Your task to perform on an android device: Open Google Chrome and open the bookmarks view Image 0: 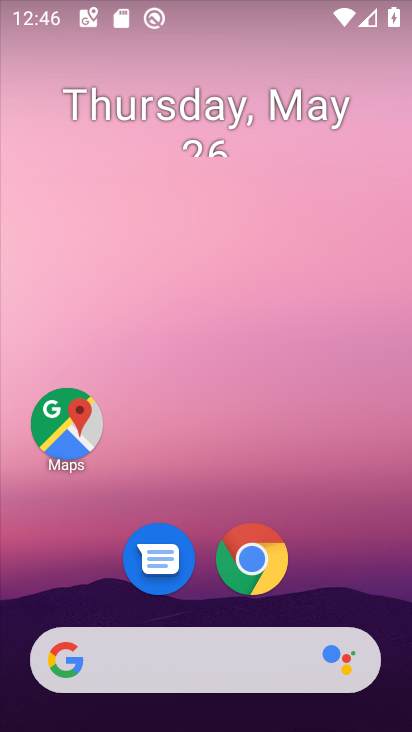
Step 0: press home button
Your task to perform on an android device: Open Google Chrome and open the bookmarks view Image 1: 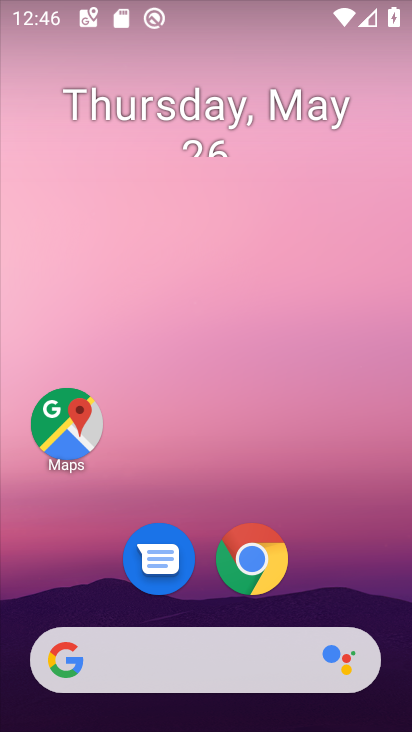
Step 1: click (262, 563)
Your task to perform on an android device: Open Google Chrome and open the bookmarks view Image 2: 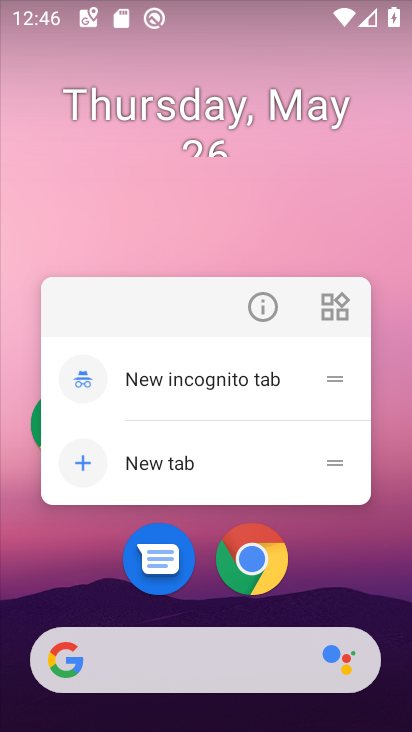
Step 2: click (262, 563)
Your task to perform on an android device: Open Google Chrome and open the bookmarks view Image 3: 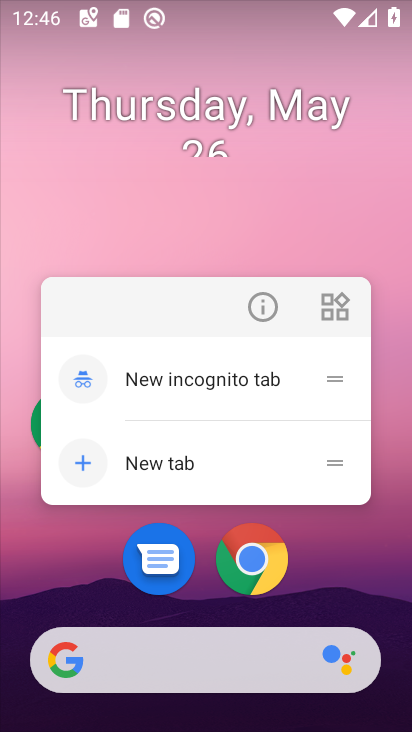
Step 3: click (262, 563)
Your task to perform on an android device: Open Google Chrome and open the bookmarks view Image 4: 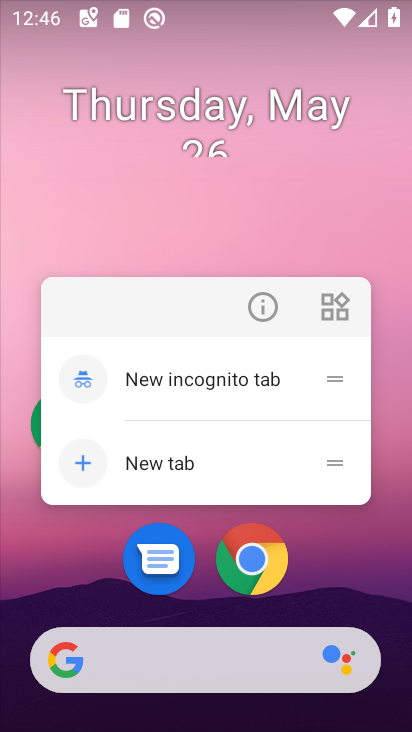
Step 4: click (246, 572)
Your task to perform on an android device: Open Google Chrome and open the bookmarks view Image 5: 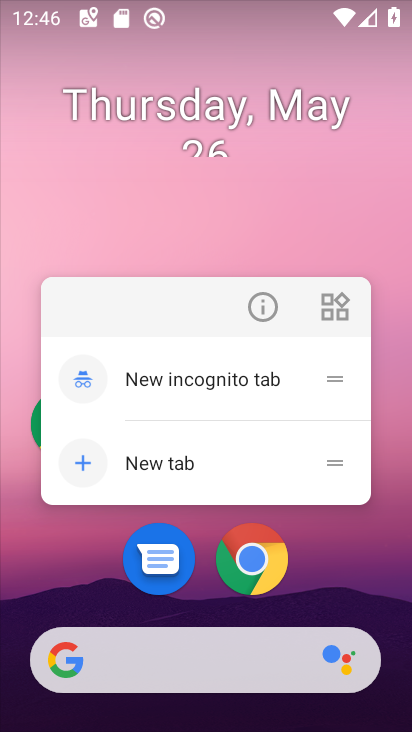
Step 5: click (247, 572)
Your task to perform on an android device: Open Google Chrome and open the bookmarks view Image 6: 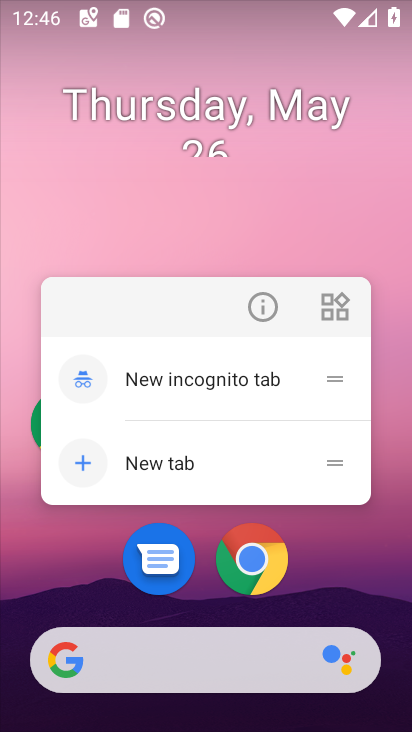
Step 6: click (244, 576)
Your task to perform on an android device: Open Google Chrome and open the bookmarks view Image 7: 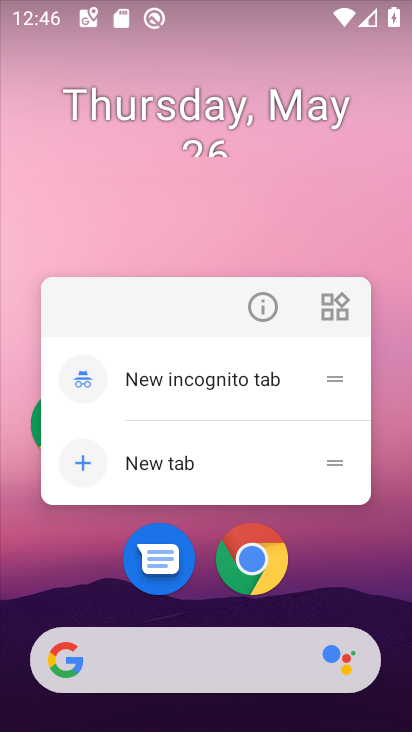
Step 7: click (309, 571)
Your task to perform on an android device: Open Google Chrome and open the bookmarks view Image 8: 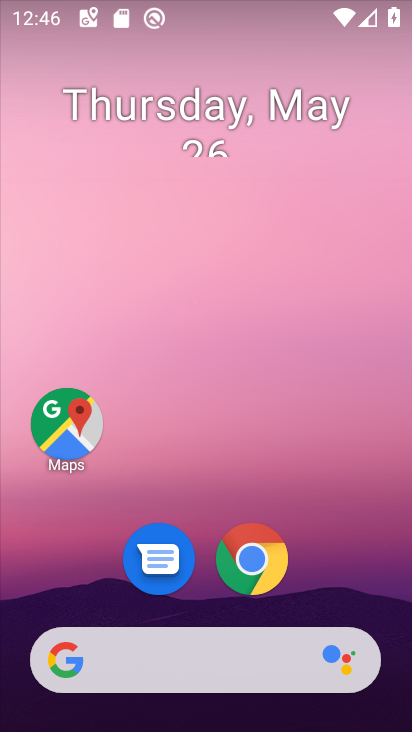
Step 8: click (272, 569)
Your task to perform on an android device: Open Google Chrome and open the bookmarks view Image 9: 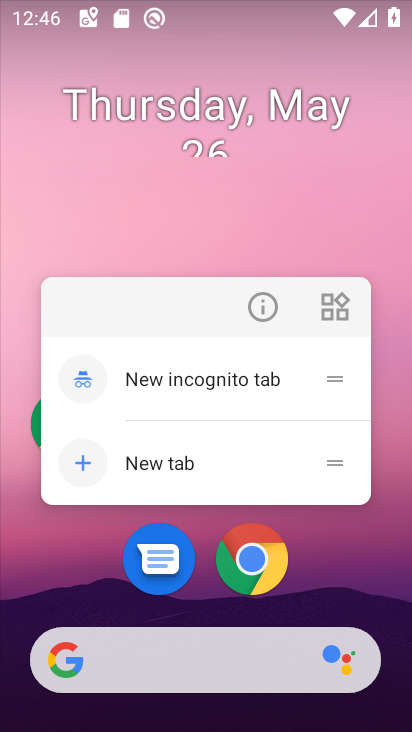
Step 9: click (257, 555)
Your task to perform on an android device: Open Google Chrome and open the bookmarks view Image 10: 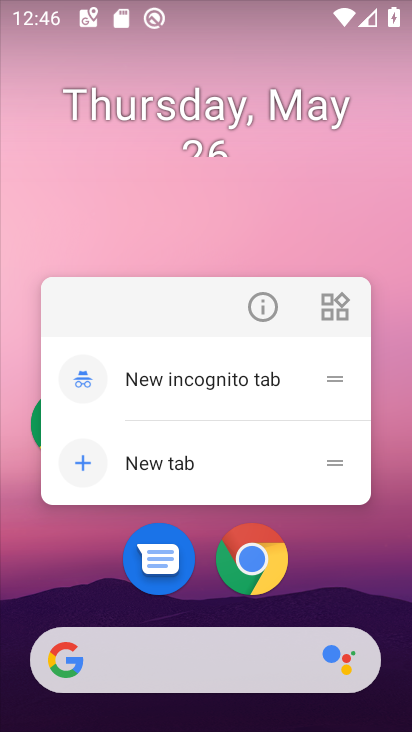
Step 10: click (257, 555)
Your task to perform on an android device: Open Google Chrome and open the bookmarks view Image 11: 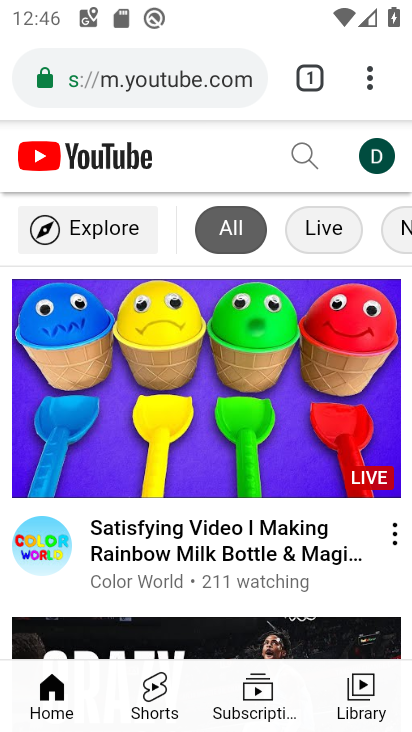
Step 11: task complete